Your task to perform on an android device: Go to accessibility settings Image 0: 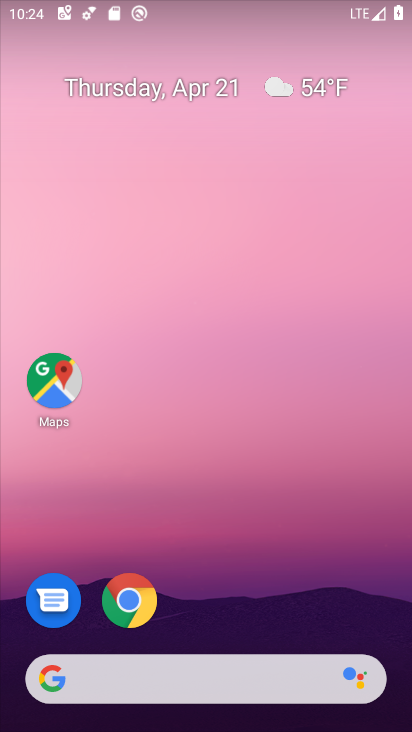
Step 0: drag from (242, 563) to (208, 36)
Your task to perform on an android device: Go to accessibility settings Image 1: 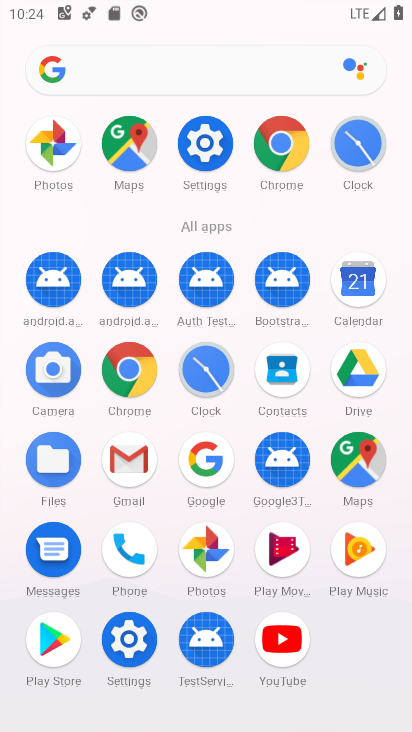
Step 1: click (199, 166)
Your task to perform on an android device: Go to accessibility settings Image 2: 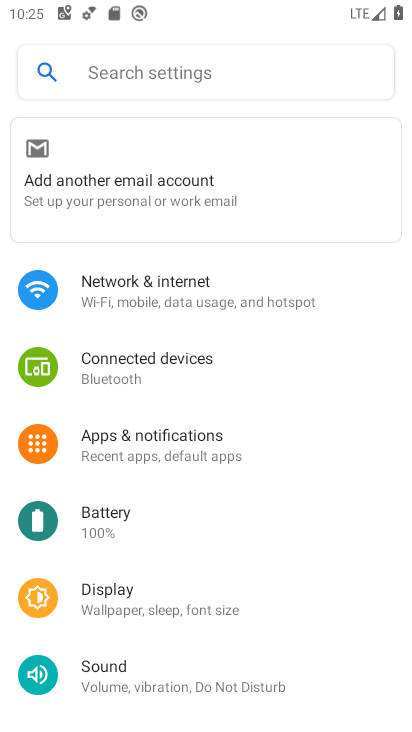
Step 2: drag from (223, 504) to (201, 237)
Your task to perform on an android device: Go to accessibility settings Image 3: 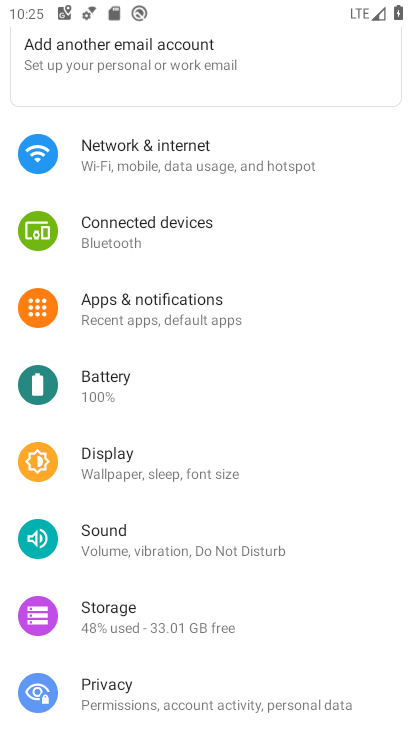
Step 3: drag from (202, 604) to (213, 250)
Your task to perform on an android device: Go to accessibility settings Image 4: 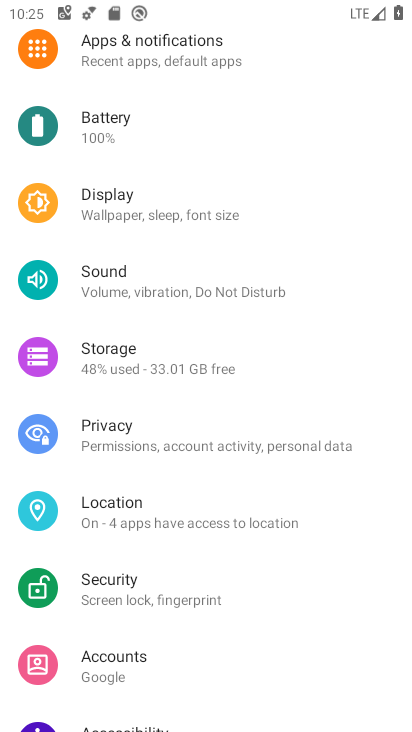
Step 4: drag from (211, 632) to (217, 206)
Your task to perform on an android device: Go to accessibility settings Image 5: 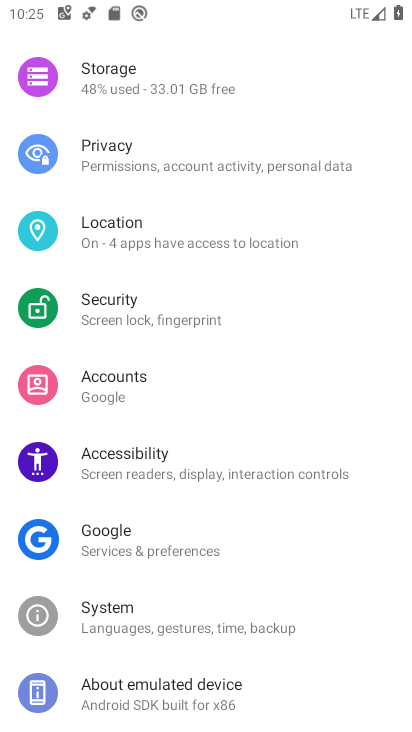
Step 5: click (188, 462)
Your task to perform on an android device: Go to accessibility settings Image 6: 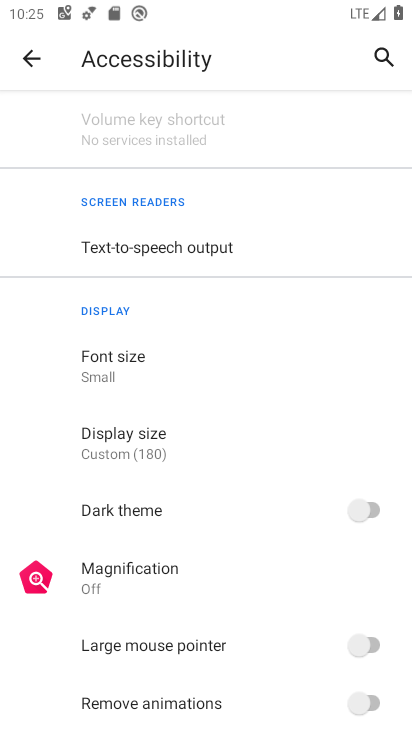
Step 6: task complete